Your task to perform on an android device: open app "Grab" Image 0: 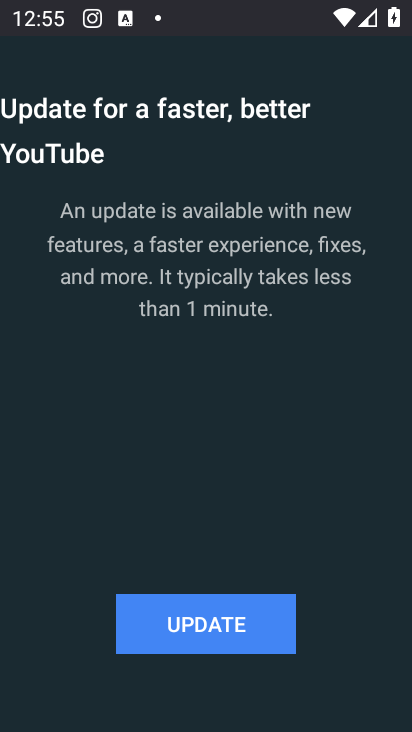
Step 0: press back button
Your task to perform on an android device: open app "Grab" Image 1: 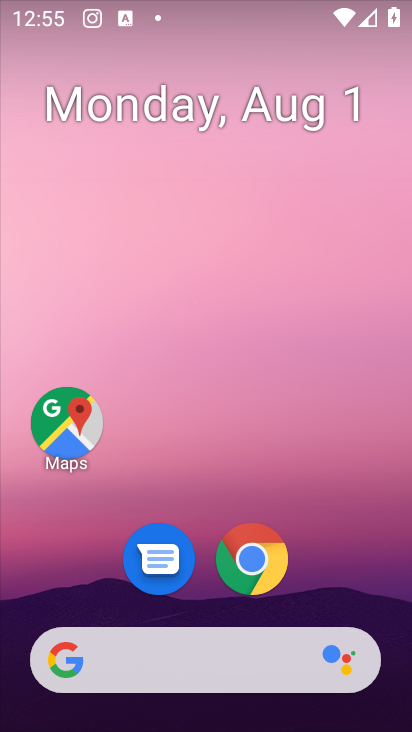
Step 1: drag from (95, 499) to (241, 23)
Your task to perform on an android device: open app "Grab" Image 2: 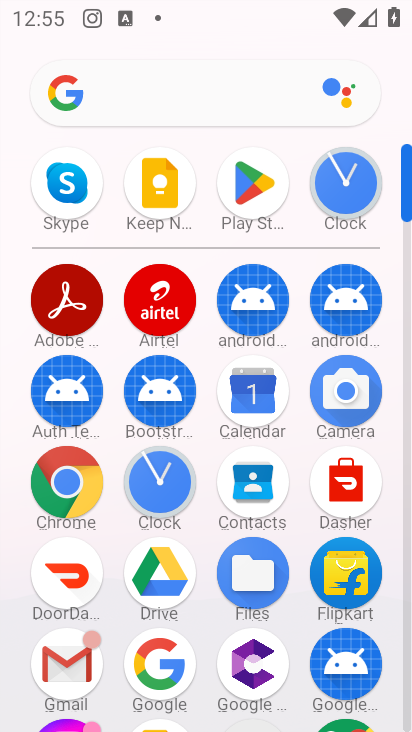
Step 2: click (262, 178)
Your task to perform on an android device: open app "Grab" Image 3: 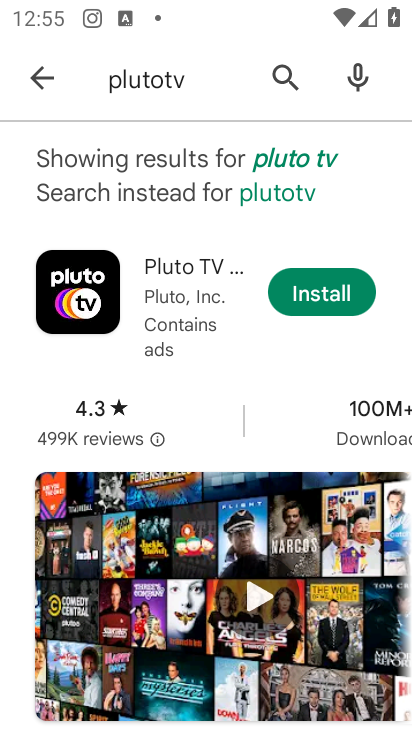
Step 3: click (284, 81)
Your task to perform on an android device: open app "Grab" Image 4: 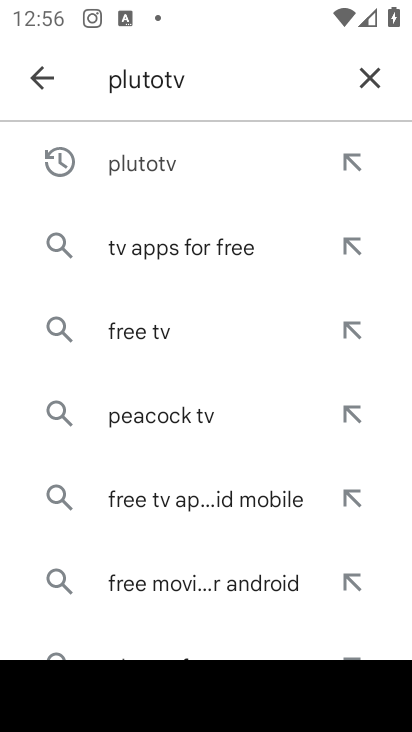
Step 4: click (371, 81)
Your task to perform on an android device: open app "Grab" Image 5: 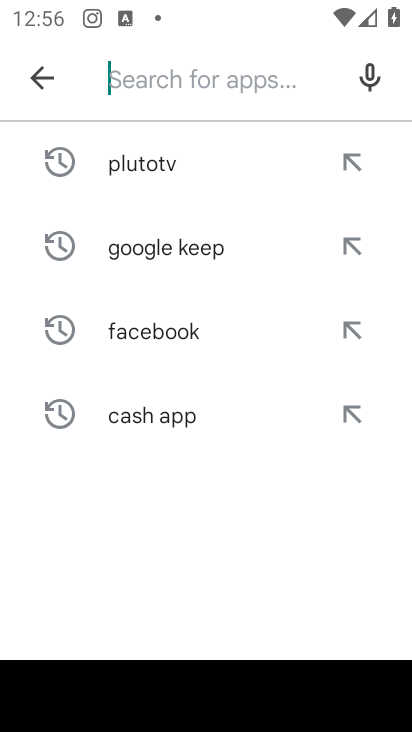
Step 5: click (138, 85)
Your task to perform on an android device: open app "Grab" Image 6: 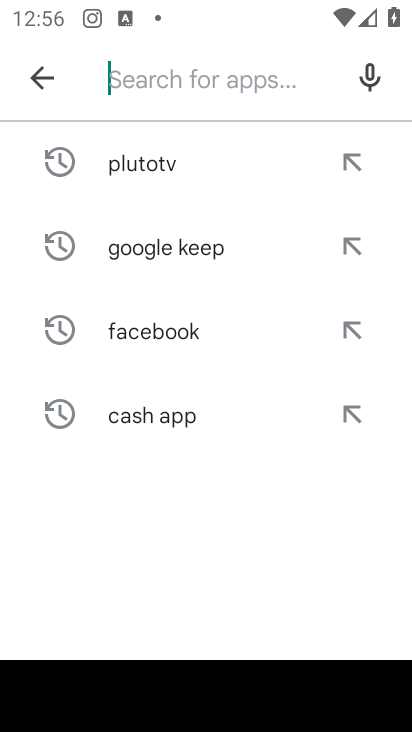
Step 6: type "grab"
Your task to perform on an android device: open app "Grab" Image 7: 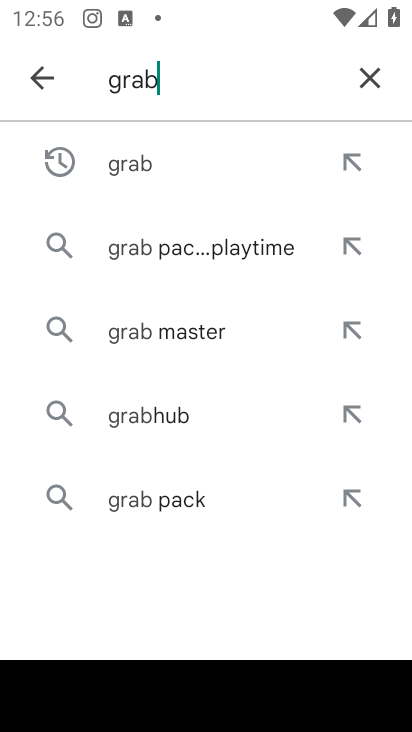
Step 7: click (170, 165)
Your task to perform on an android device: open app "Grab" Image 8: 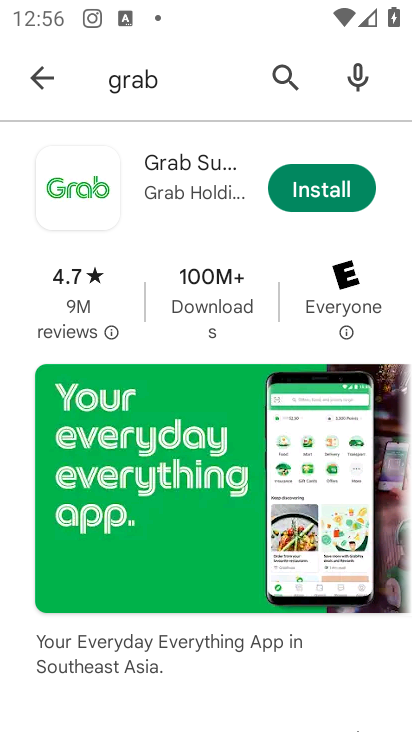
Step 8: task complete